Your task to perform on an android device: Open Yahoo.com Image 0: 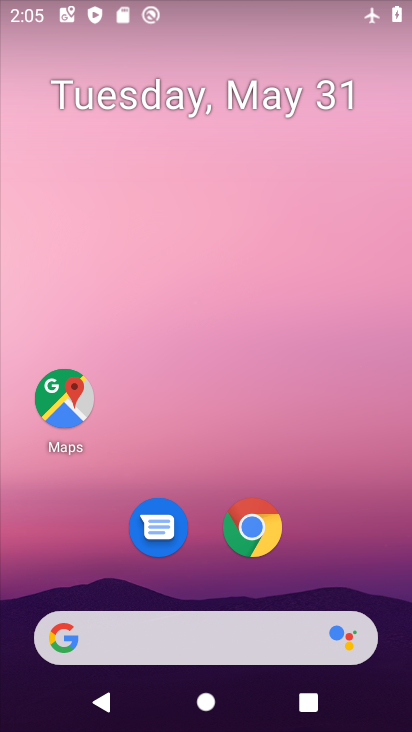
Step 0: drag from (365, 515) to (341, 85)
Your task to perform on an android device: Open Yahoo.com Image 1: 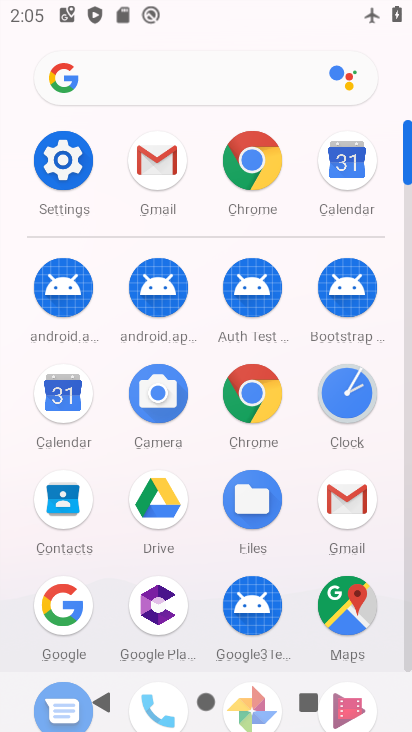
Step 1: click (239, 170)
Your task to perform on an android device: Open Yahoo.com Image 2: 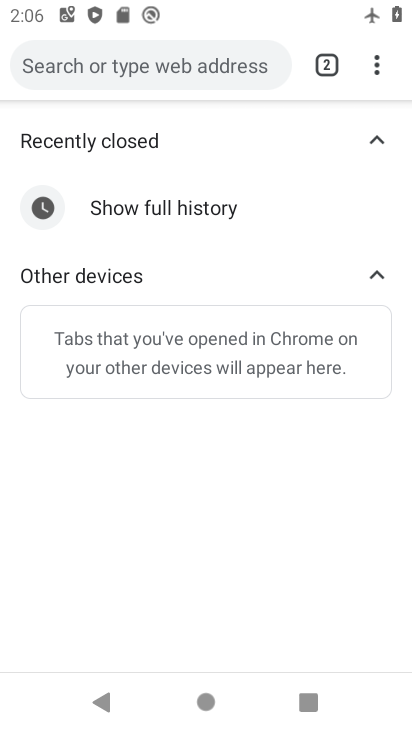
Step 2: click (105, 78)
Your task to perform on an android device: Open Yahoo.com Image 3: 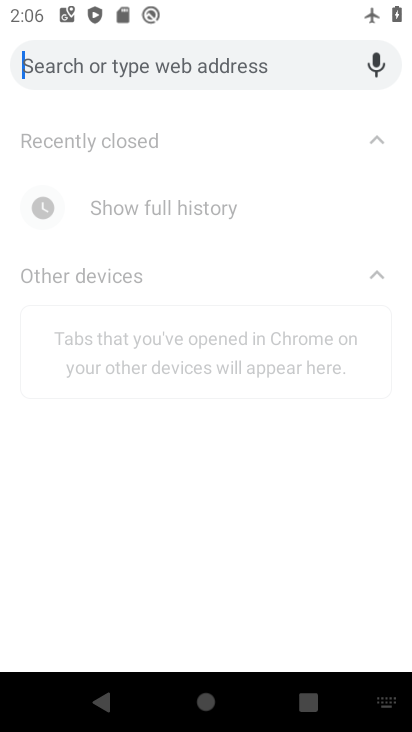
Step 3: type "yahoo"
Your task to perform on an android device: Open Yahoo.com Image 4: 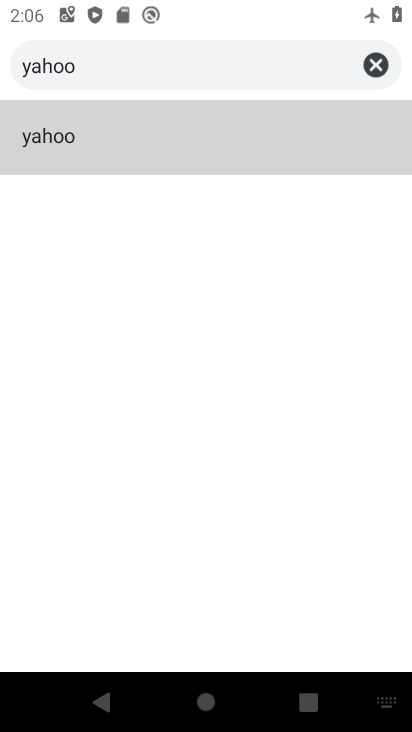
Step 4: click (58, 154)
Your task to perform on an android device: Open Yahoo.com Image 5: 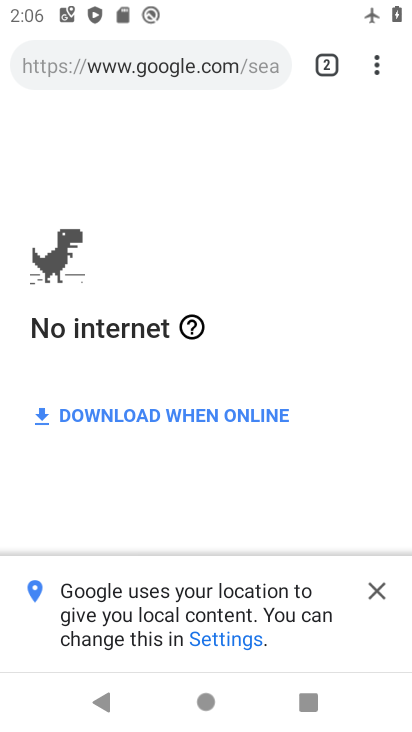
Step 5: task complete